Your task to perform on an android device: Clear all items from cart on amazon. Search for "razer nari" on amazon, select the first entry, add it to the cart, then select checkout. Image 0: 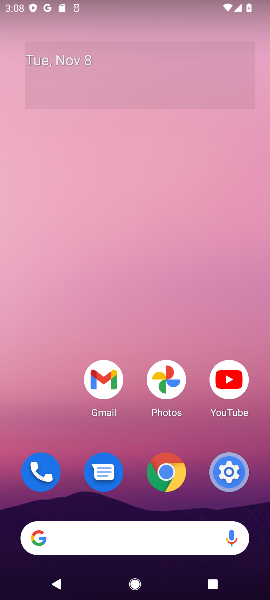
Step 0: click (129, 548)
Your task to perform on an android device: Clear all items from cart on amazon. Search for "razer nari" on amazon, select the first entry, add it to the cart, then select checkout. Image 1: 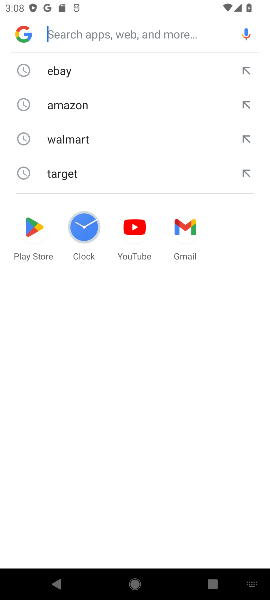
Step 1: click (60, 100)
Your task to perform on an android device: Clear all items from cart on amazon. Search for "razer nari" on amazon, select the first entry, add it to the cart, then select checkout. Image 2: 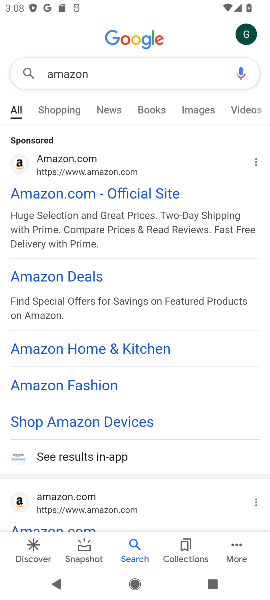
Step 2: click (99, 205)
Your task to perform on an android device: Clear all items from cart on amazon. Search for "razer nari" on amazon, select the first entry, add it to the cart, then select checkout. Image 3: 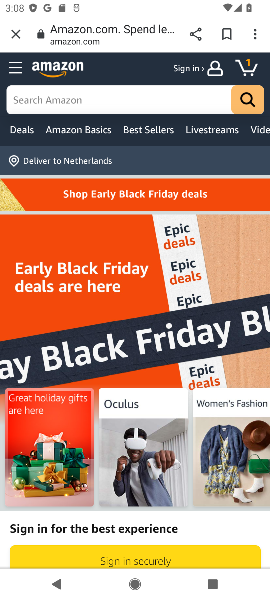
Step 3: click (152, 108)
Your task to perform on an android device: Clear all items from cart on amazon. Search for "razer nari" on amazon, select the first entry, add it to the cart, then select checkout. Image 4: 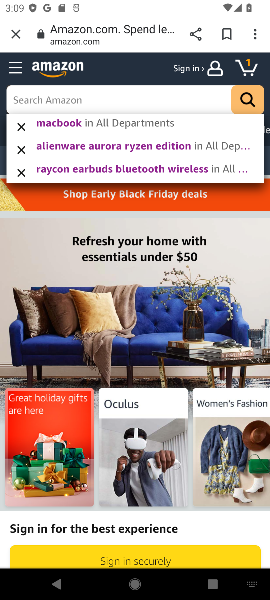
Step 4: type "razer nari"
Your task to perform on an android device: Clear all items from cart on amazon. Search for "razer nari" on amazon, select the first entry, add it to the cart, then select checkout. Image 5: 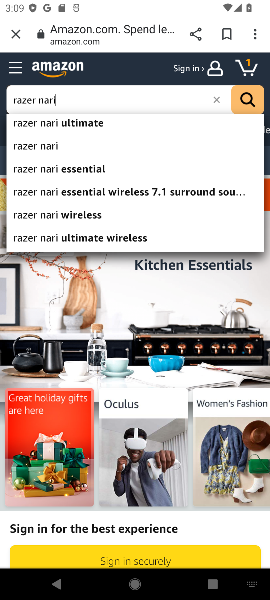
Step 5: click (74, 147)
Your task to perform on an android device: Clear all items from cart on amazon. Search for "razer nari" on amazon, select the first entry, add it to the cart, then select checkout. Image 6: 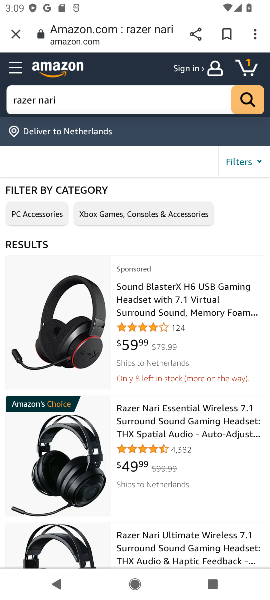
Step 6: click (153, 282)
Your task to perform on an android device: Clear all items from cart on amazon. Search for "razer nari" on amazon, select the first entry, add it to the cart, then select checkout. Image 7: 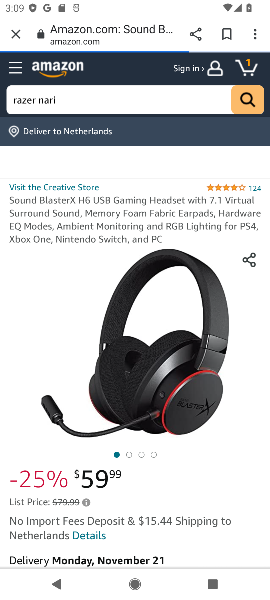
Step 7: drag from (202, 471) to (208, 257)
Your task to perform on an android device: Clear all items from cart on amazon. Search for "razer nari" on amazon, select the first entry, add it to the cart, then select checkout. Image 8: 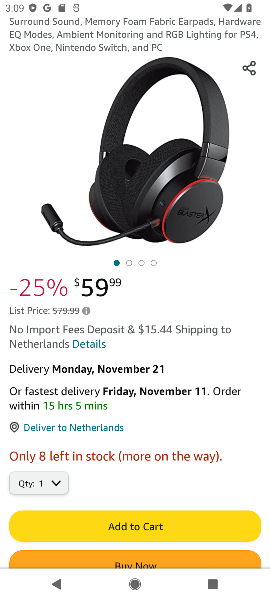
Step 8: click (194, 525)
Your task to perform on an android device: Clear all items from cart on amazon. Search for "razer nari" on amazon, select the first entry, add it to the cart, then select checkout. Image 9: 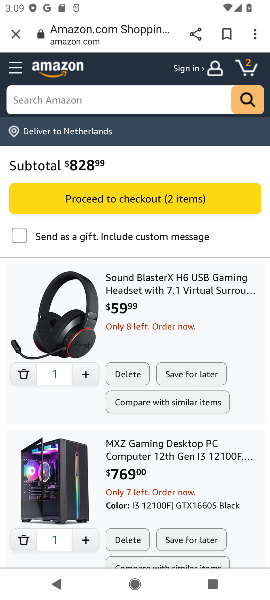
Step 9: task complete